Your task to perform on an android device: set an alarm Image 0: 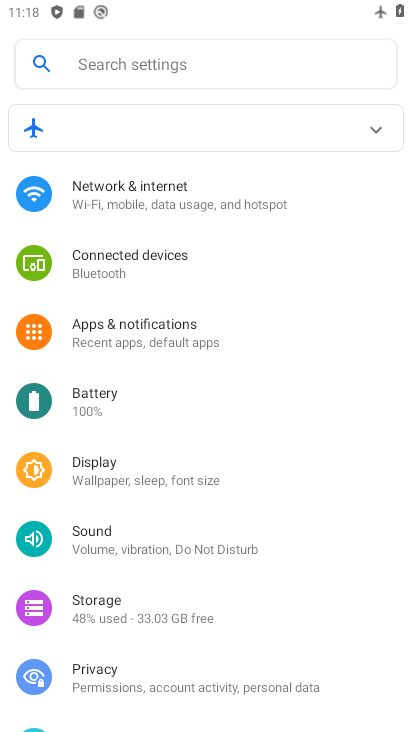
Step 0: press home button
Your task to perform on an android device: set an alarm Image 1: 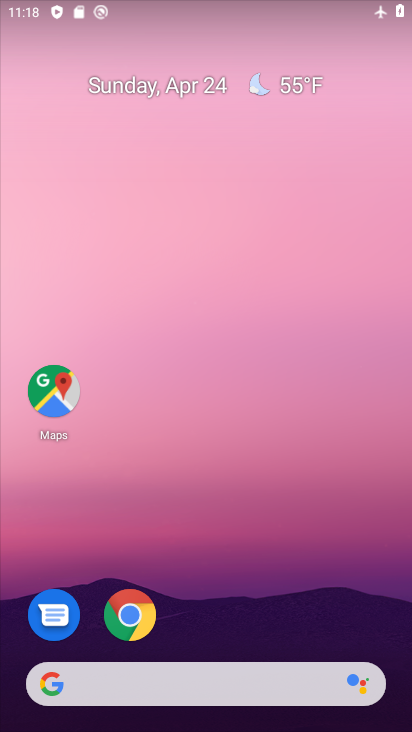
Step 1: drag from (216, 644) to (208, 81)
Your task to perform on an android device: set an alarm Image 2: 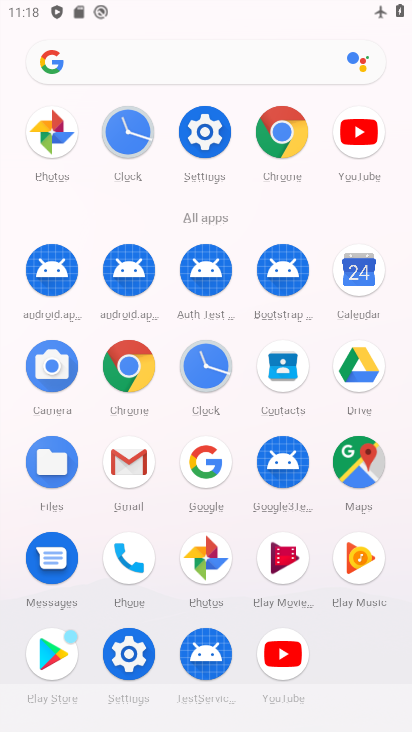
Step 2: click (203, 355)
Your task to perform on an android device: set an alarm Image 3: 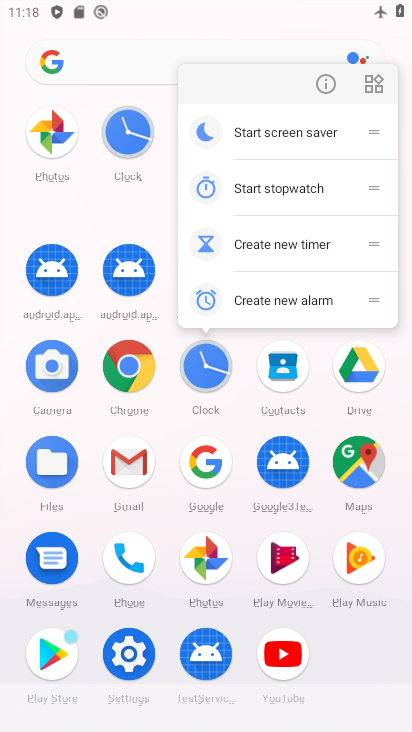
Step 3: click (203, 358)
Your task to perform on an android device: set an alarm Image 4: 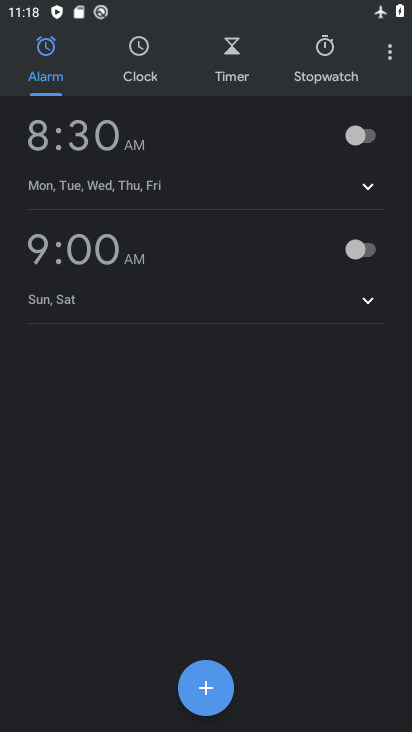
Step 4: click (136, 133)
Your task to perform on an android device: set an alarm Image 5: 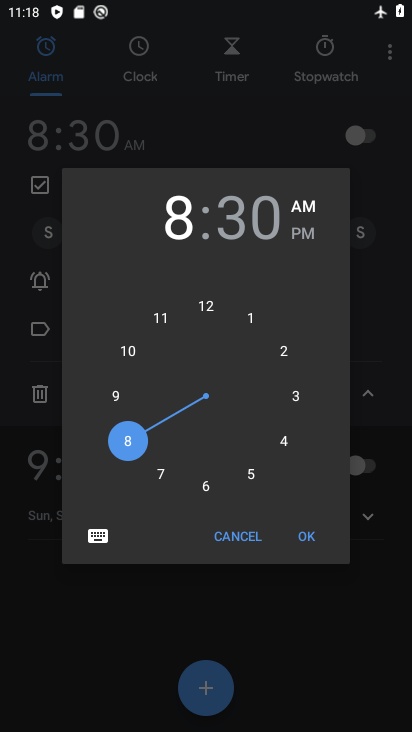
Step 5: click (305, 535)
Your task to perform on an android device: set an alarm Image 6: 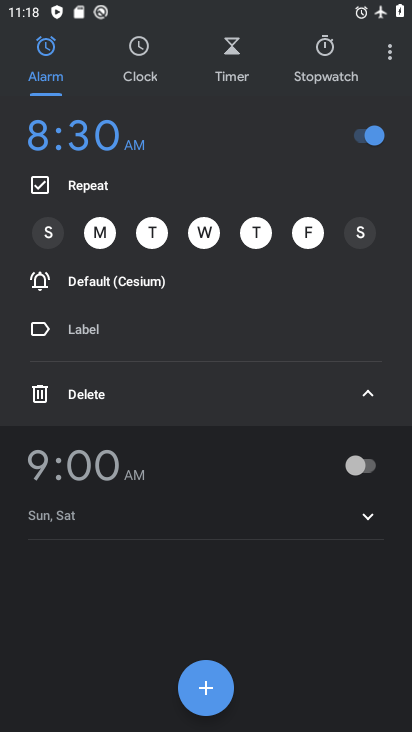
Step 6: task complete